Your task to perform on an android device: Go to network settings Image 0: 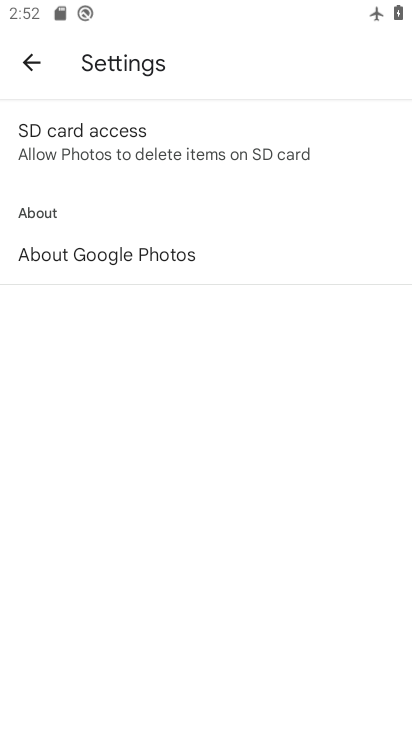
Step 0: press home button
Your task to perform on an android device: Go to network settings Image 1: 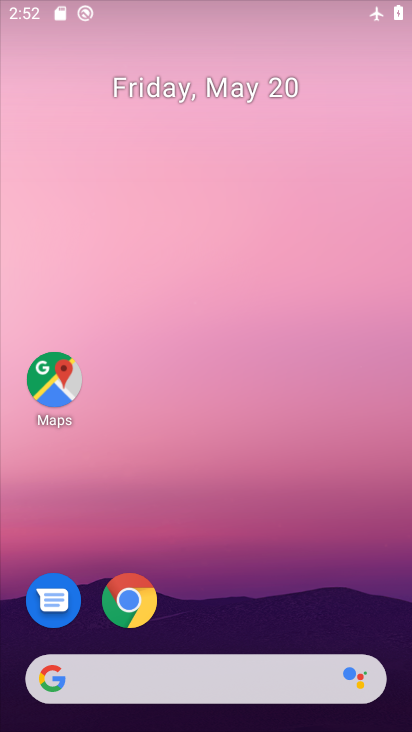
Step 1: drag from (306, 449) to (190, 62)
Your task to perform on an android device: Go to network settings Image 2: 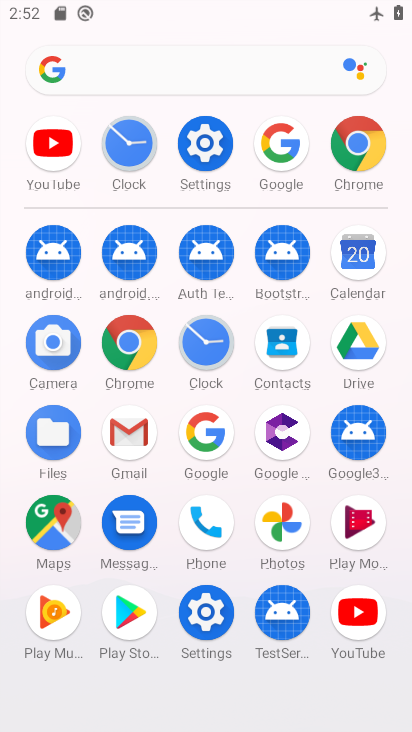
Step 2: click (213, 130)
Your task to perform on an android device: Go to network settings Image 3: 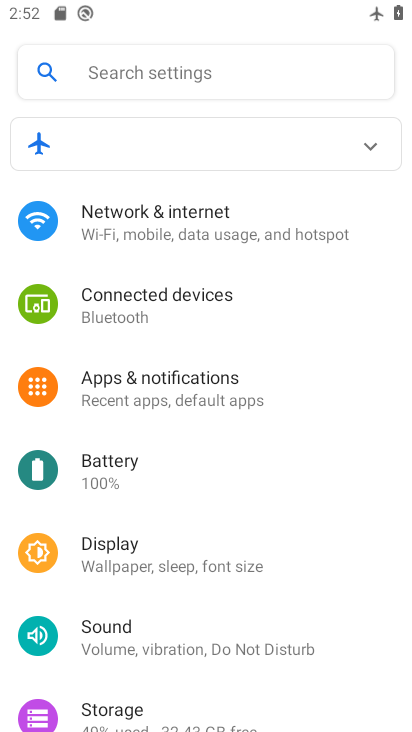
Step 3: click (210, 219)
Your task to perform on an android device: Go to network settings Image 4: 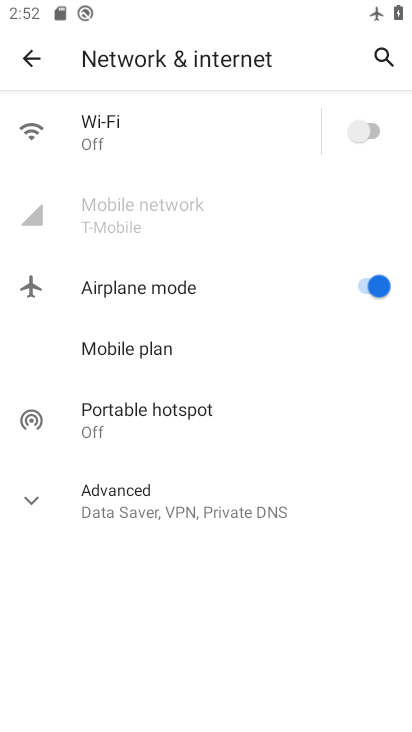
Step 4: task complete